Your task to perform on an android device: turn notification dots off Image 0: 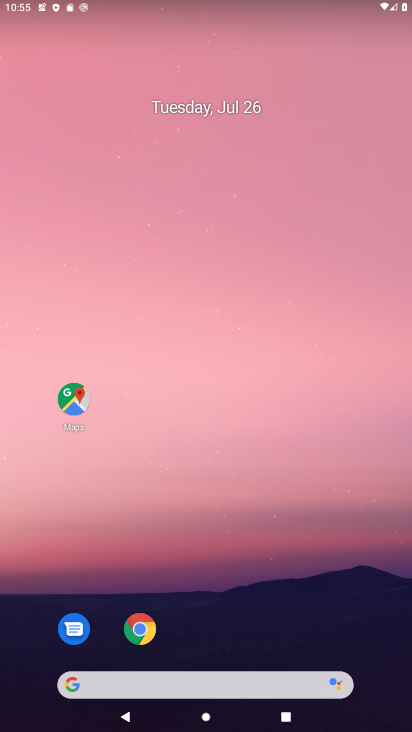
Step 0: click (158, 295)
Your task to perform on an android device: turn notification dots off Image 1: 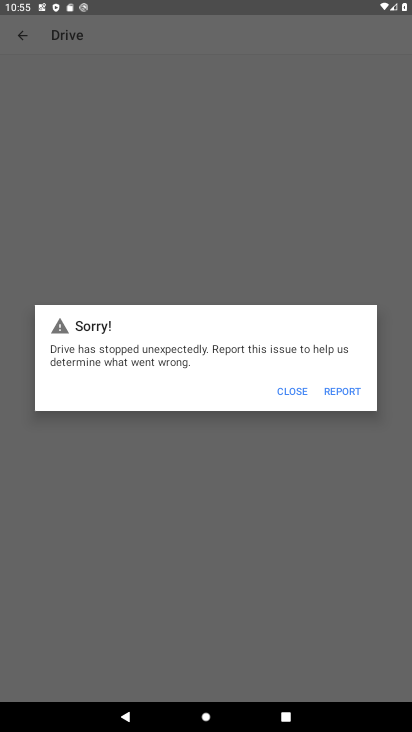
Step 1: press home button
Your task to perform on an android device: turn notification dots off Image 2: 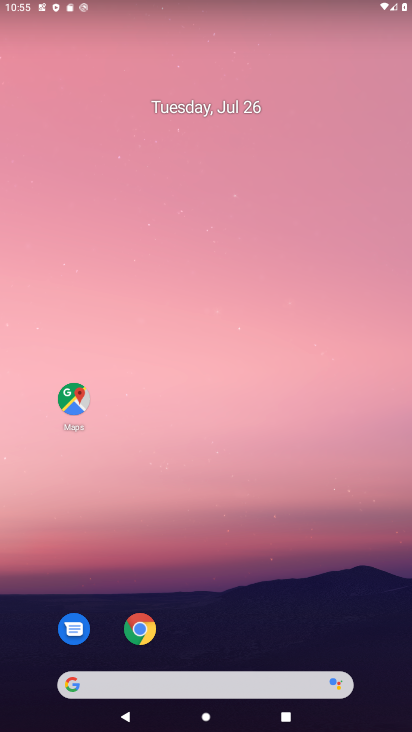
Step 2: drag from (199, 615) to (228, 153)
Your task to perform on an android device: turn notification dots off Image 3: 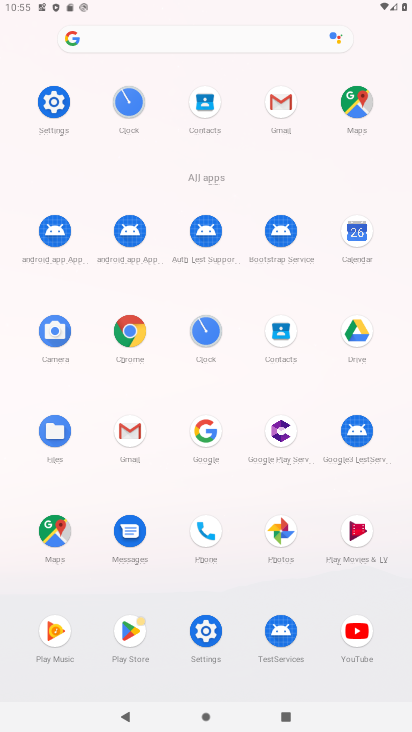
Step 3: click (49, 108)
Your task to perform on an android device: turn notification dots off Image 4: 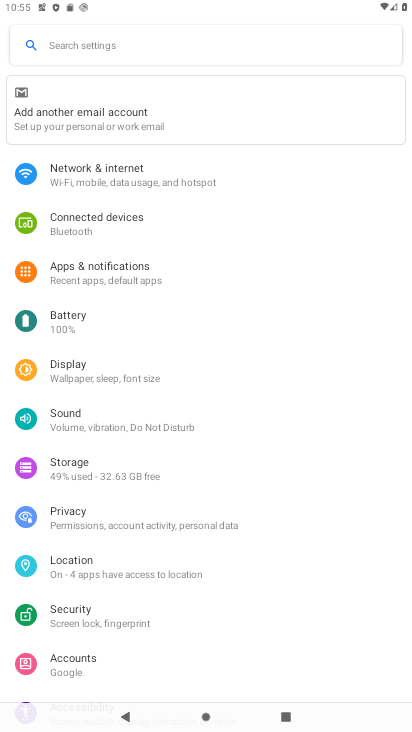
Step 4: click (75, 286)
Your task to perform on an android device: turn notification dots off Image 5: 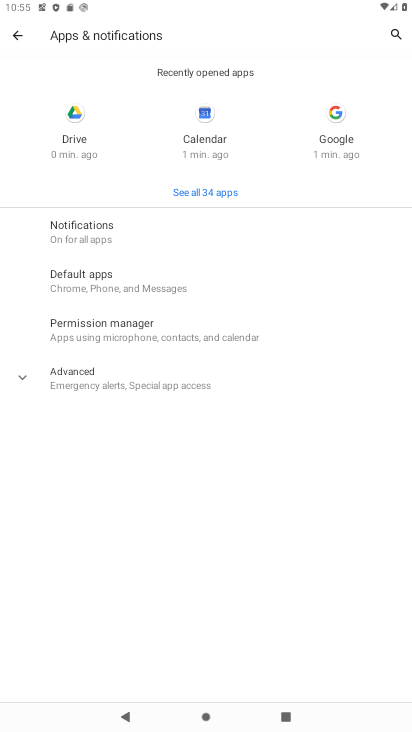
Step 5: click (85, 229)
Your task to perform on an android device: turn notification dots off Image 6: 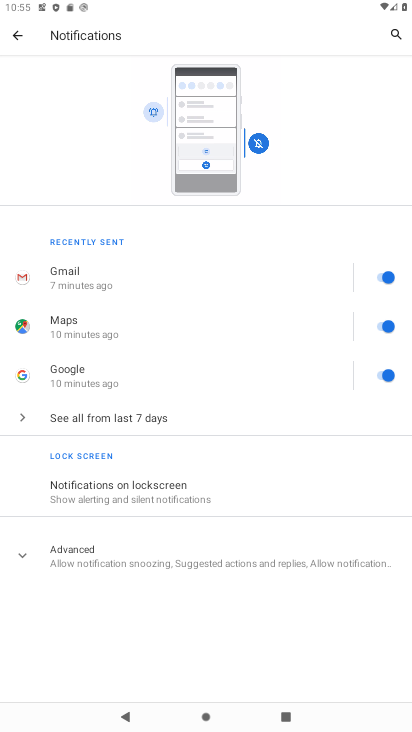
Step 6: click (76, 555)
Your task to perform on an android device: turn notification dots off Image 7: 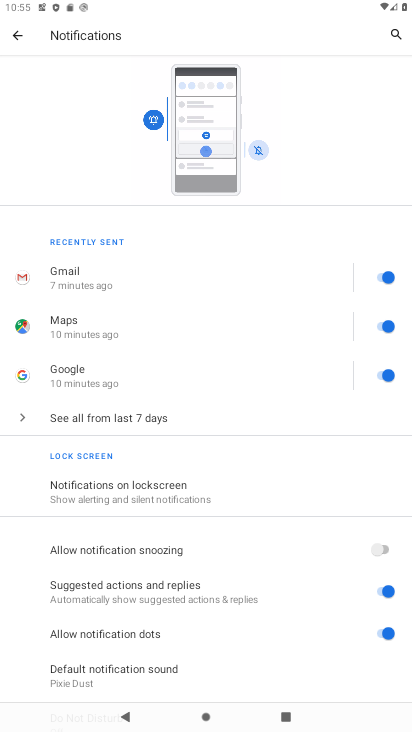
Step 7: click (387, 633)
Your task to perform on an android device: turn notification dots off Image 8: 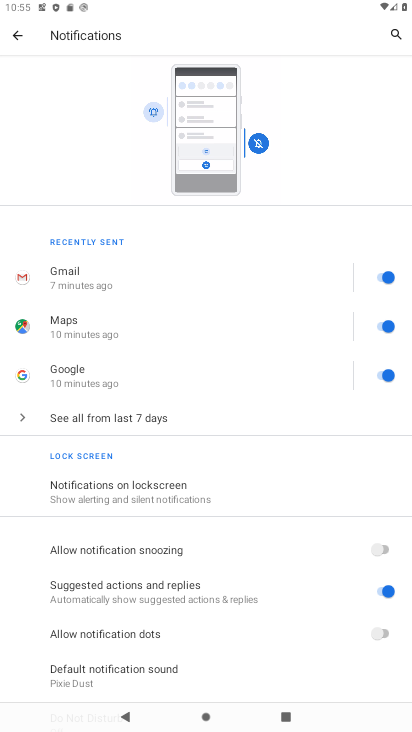
Step 8: task complete